Your task to perform on an android device: manage bookmarks in the chrome app Image 0: 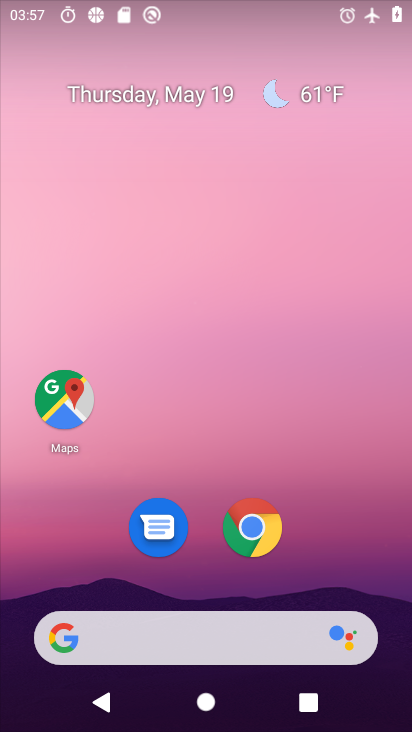
Step 0: click (252, 523)
Your task to perform on an android device: manage bookmarks in the chrome app Image 1: 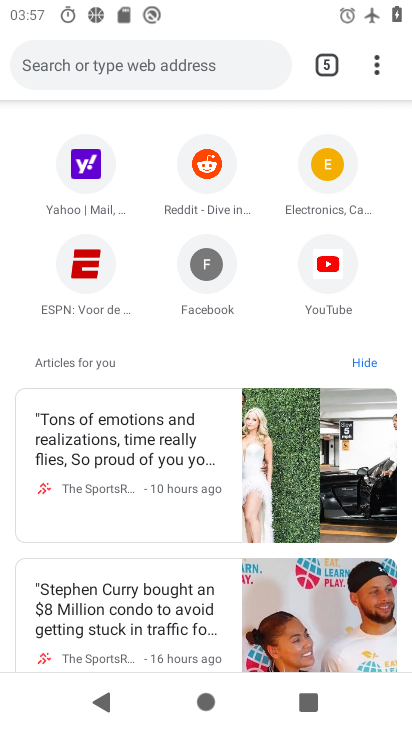
Step 1: drag from (383, 59) to (161, 245)
Your task to perform on an android device: manage bookmarks in the chrome app Image 2: 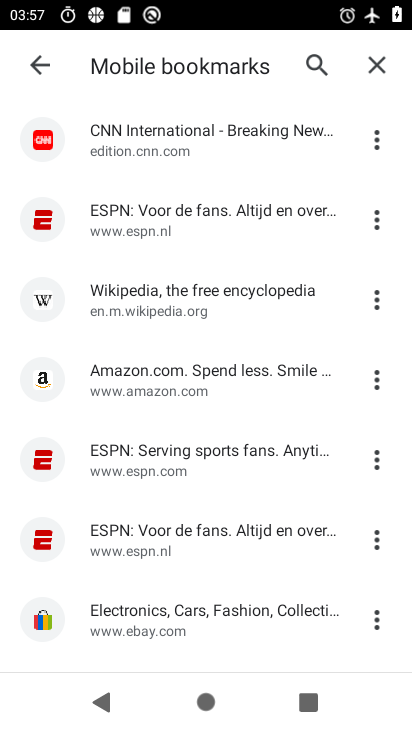
Step 2: click (376, 216)
Your task to perform on an android device: manage bookmarks in the chrome app Image 3: 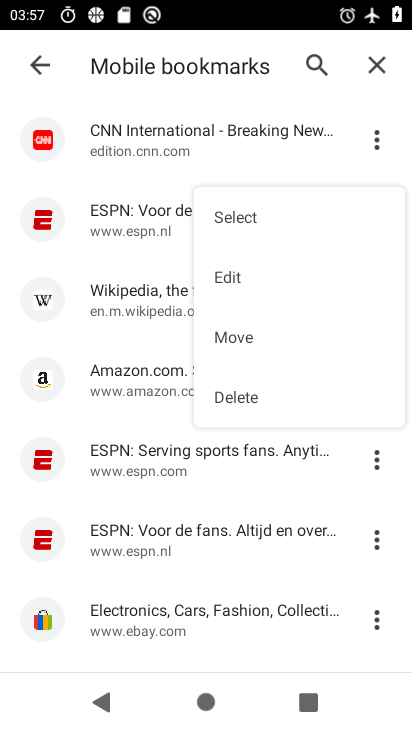
Step 3: click (230, 405)
Your task to perform on an android device: manage bookmarks in the chrome app Image 4: 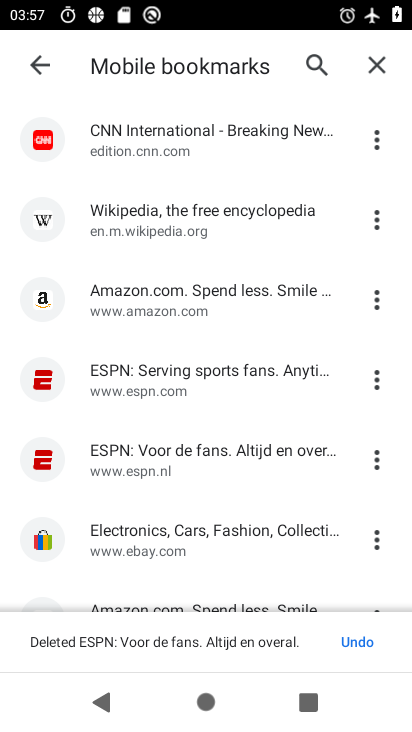
Step 4: task complete